Your task to perform on an android device: Go to CNN.com Image 0: 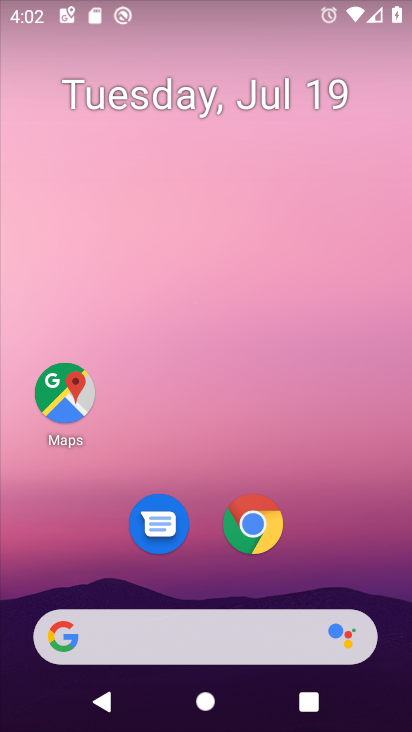
Step 0: click (209, 654)
Your task to perform on an android device: Go to CNN.com Image 1: 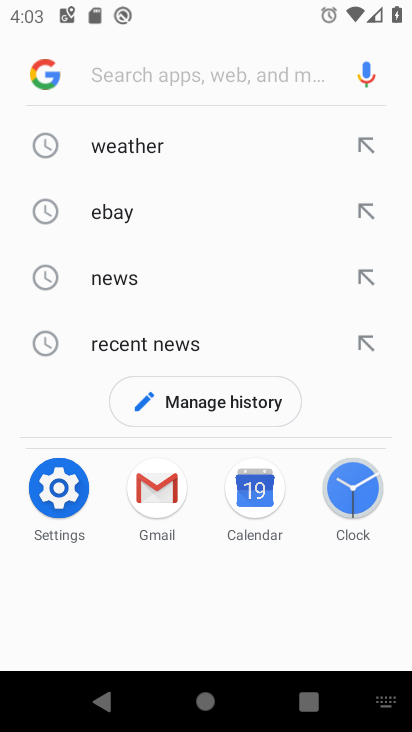
Step 1: type "cnn.com"
Your task to perform on an android device: Go to CNN.com Image 2: 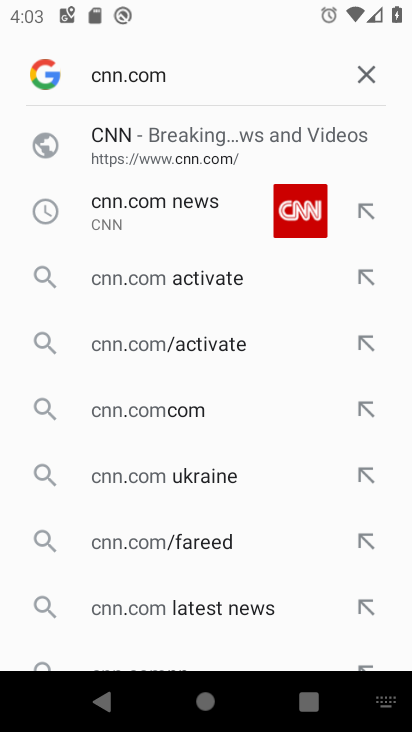
Step 2: click (156, 207)
Your task to perform on an android device: Go to CNN.com Image 3: 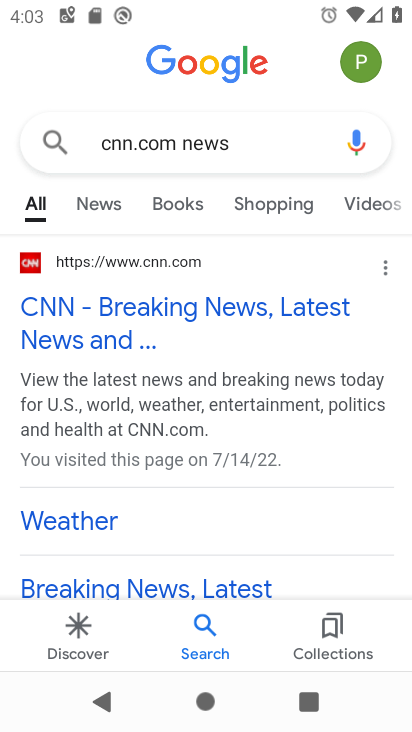
Step 3: click (117, 308)
Your task to perform on an android device: Go to CNN.com Image 4: 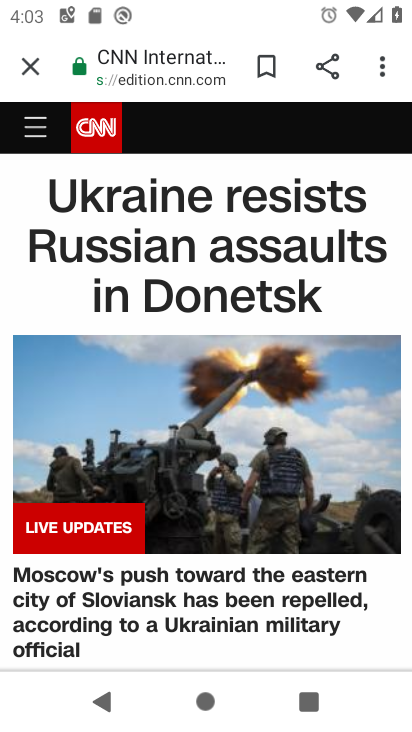
Step 4: task complete